Your task to perform on an android device: empty trash in google photos Image 0: 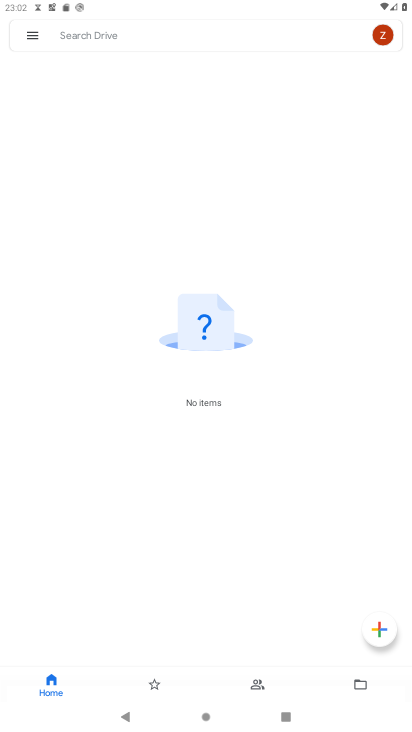
Step 0: press home button
Your task to perform on an android device: empty trash in google photos Image 1: 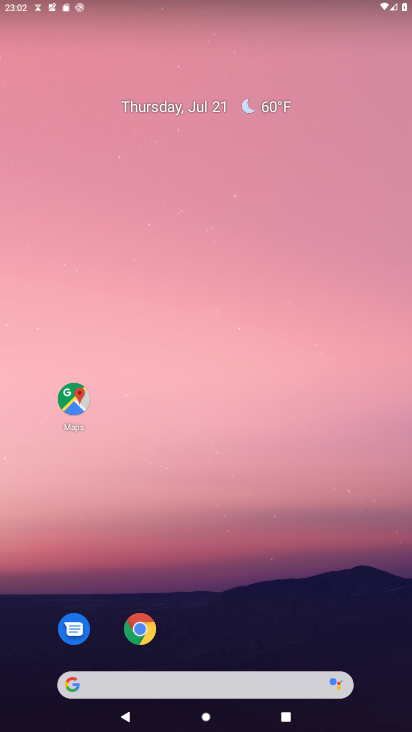
Step 1: drag from (252, 667) to (245, 178)
Your task to perform on an android device: empty trash in google photos Image 2: 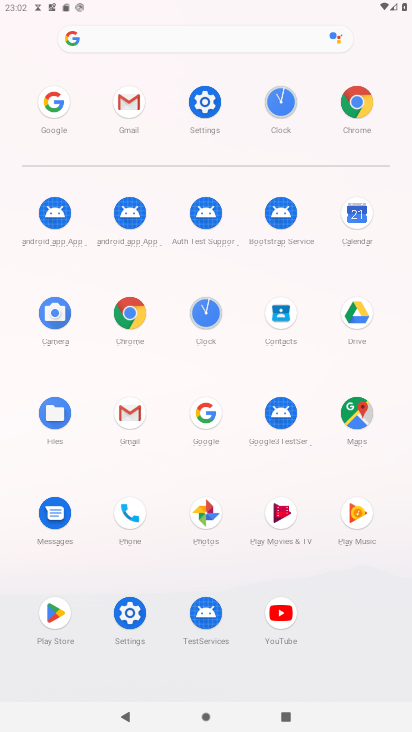
Step 2: click (203, 521)
Your task to perform on an android device: empty trash in google photos Image 3: 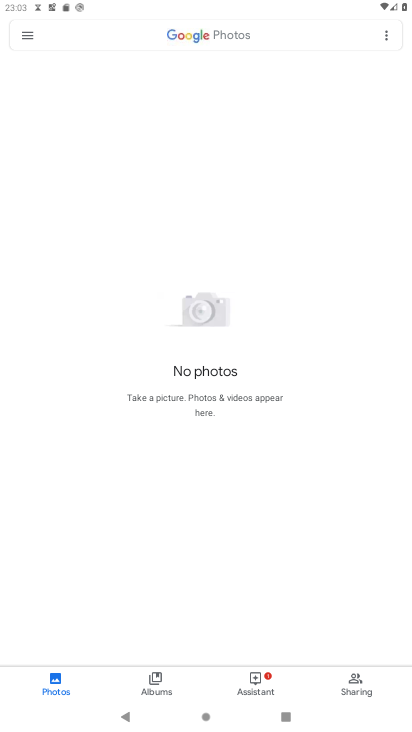
Step 3: click (27, 28)
Your task to perform on an android device: empty trash in google photos Image 4: 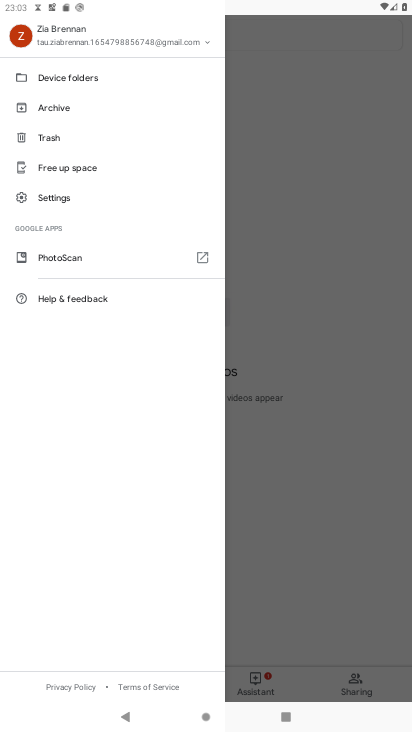
Step 4: click (62, 140)
Your task to perform on an android device: empty trash in google photos Image 5: 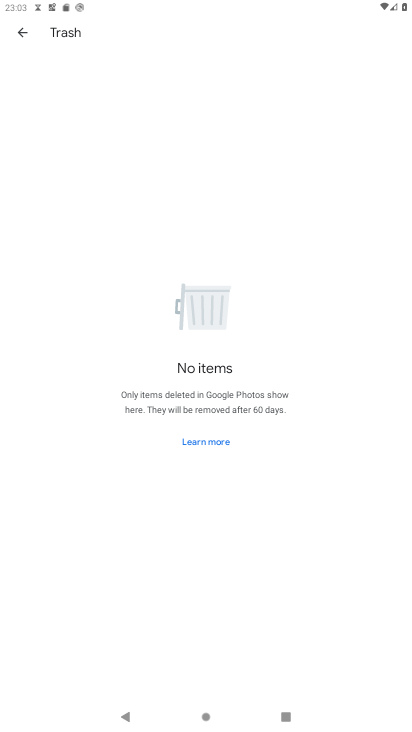
Step 5: task complete